Your task to perform on an android device: Is it going to rain tomorrow? Image 0: 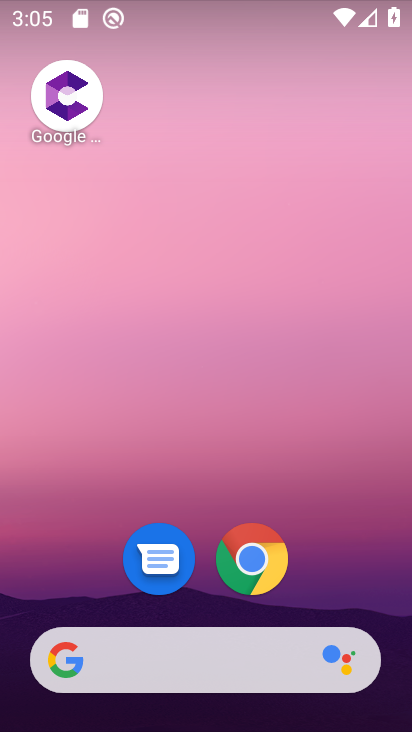
Step 0: click (217, 649)
Your task to perform on an android device: Is it going to rain tomorrow? Image 1: 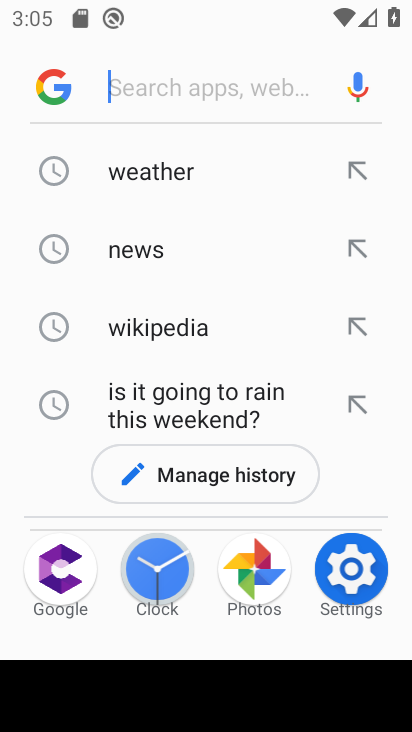
Step 1: click (132, 150)
Your task to perform on an android device: Is it going to rain tomorrow? Image 2: 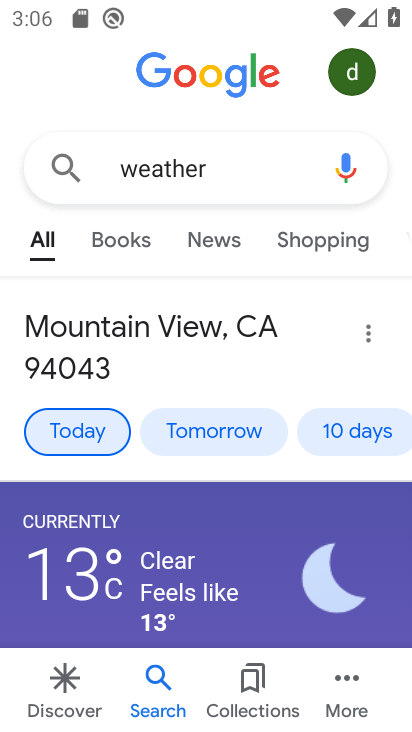
Step 2: click (201, 410)
Your task to perform on an android device: Is it going to rain tomorrow? Image 3: 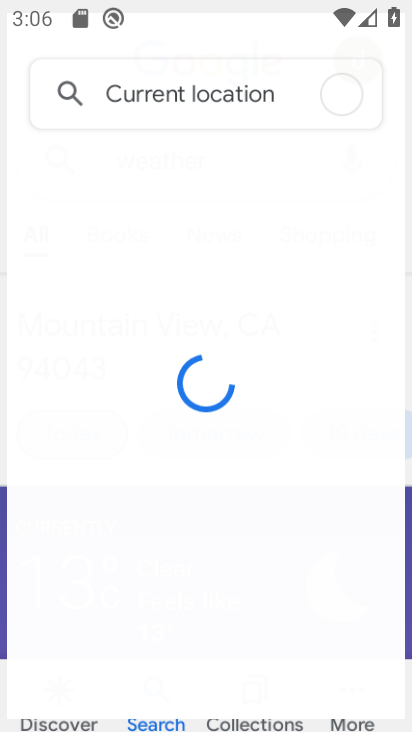
Step 3: click (198, 421)
Your task to perform on an android device: Is it going to rain tomorrow? Image 4: 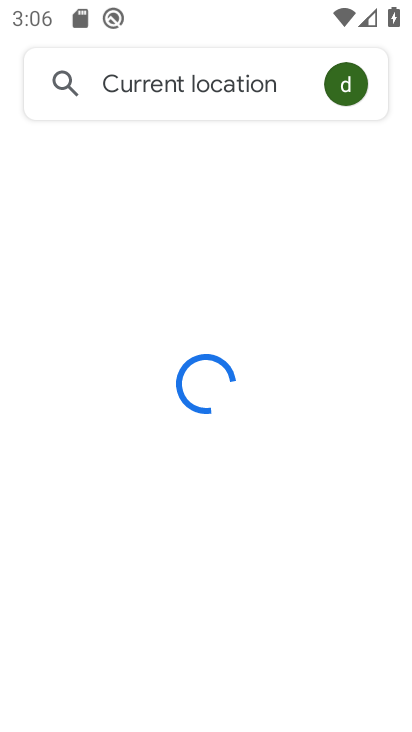
Step 4: click (198, 422)
Your task to perform on an android device: Is it going to rain tomorrow? Image 5: 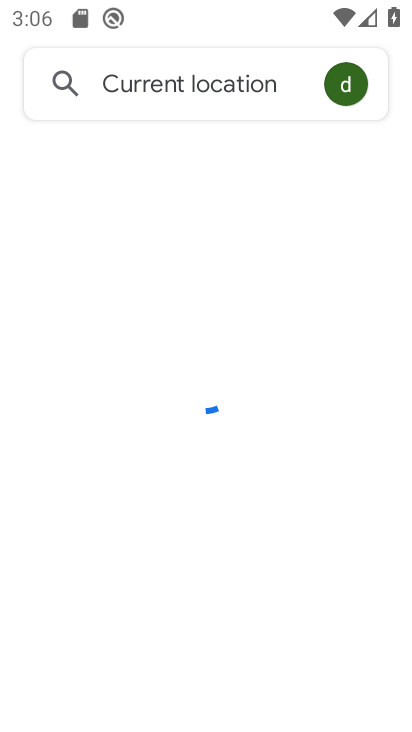
Step 5: click (198, 423)
Your task to perform on an android device: Is it going to rain tomorrow? Image 6: 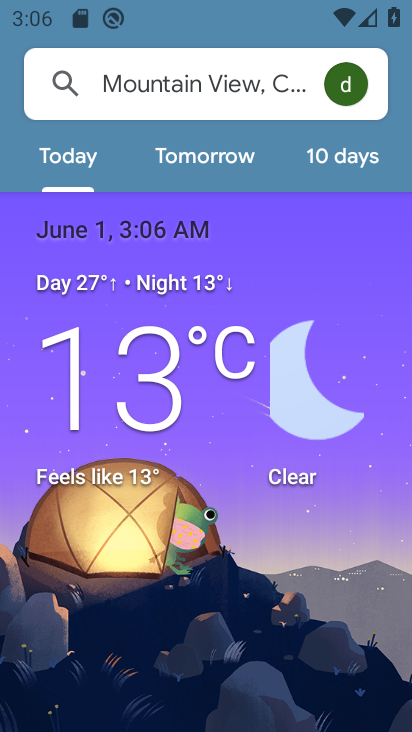
Step 6: task complete